Your task to perform on an android device: Open calendar and show me the second week of next month Image 0: 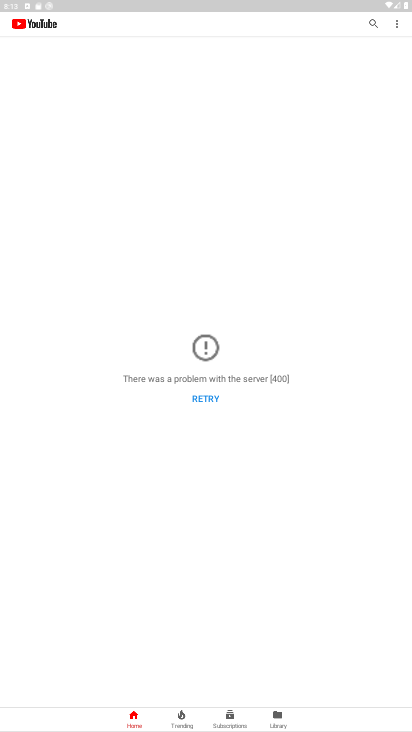
Step 0: press home button
Your task to perform on an android device: Open calendar and show me the second week of next month Image 1: 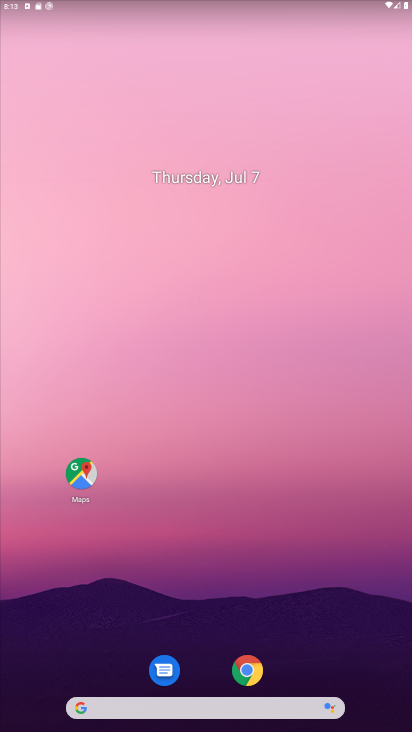
Step 1: drag from (12, 548) to (224, 81)
Your task to perform on an android device: Open calendar and show me the second week of next month Image 2: 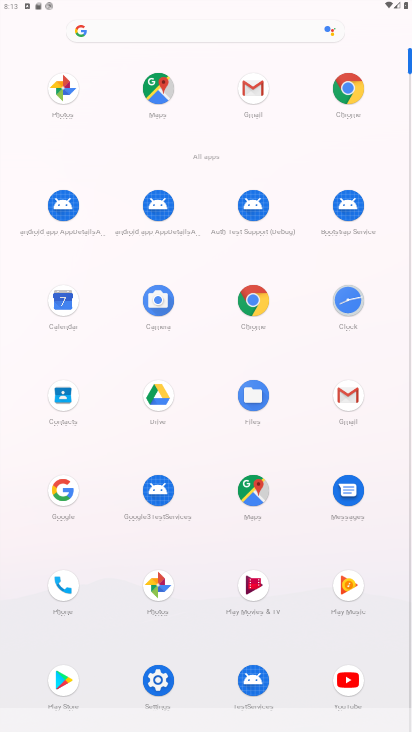
Step 2: click (67, 311)
Your task to perform on an android device: Open calendar and show me the second week of next month Image 3: 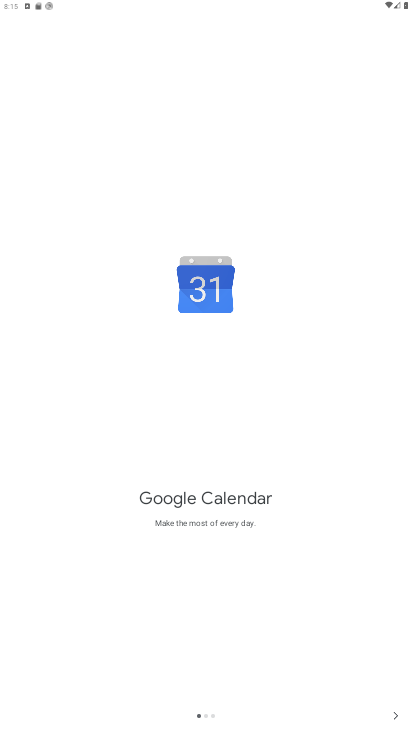
Step 3: click (402, 706)
Your task to perform on an android device: Open calendar and show me the second week of next month Image 4: 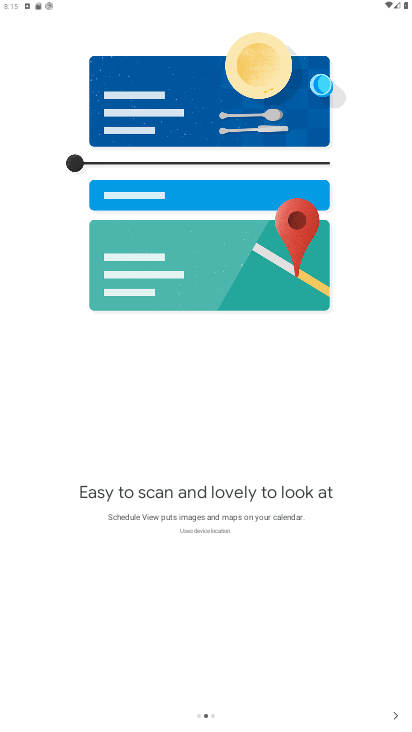
Step 4: click (386, 716)
Your task to perform on an android device: Open calendar and show me the second week of next month Image 5: 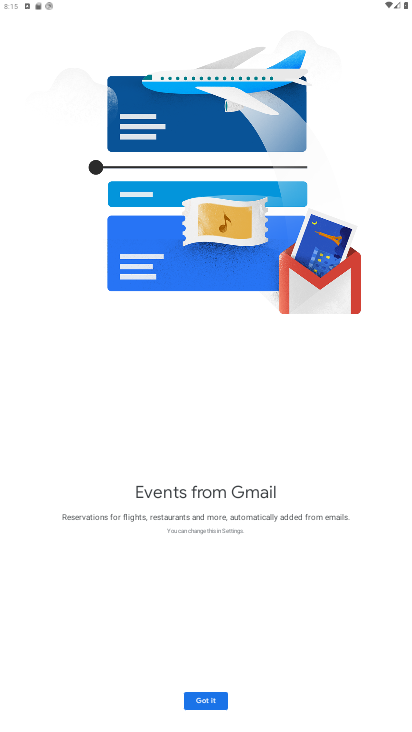
Step 5: click (191, 697)
Your task to perform on an android device: Open calendar and show me the second week of next month Image 6: 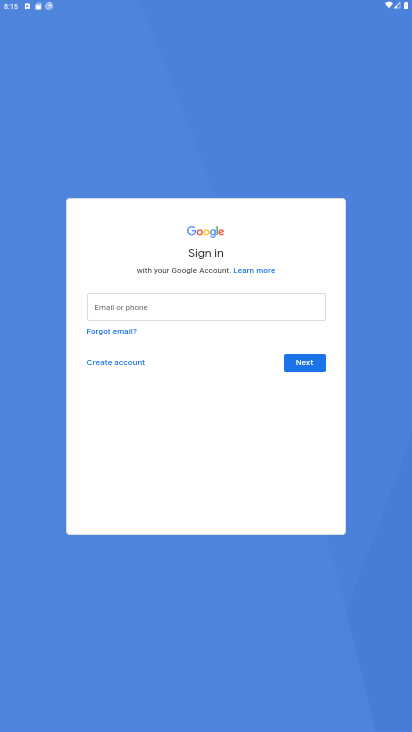
Step 6: task complete